Your task to perform on an android device: Go to internet settings Image 0: 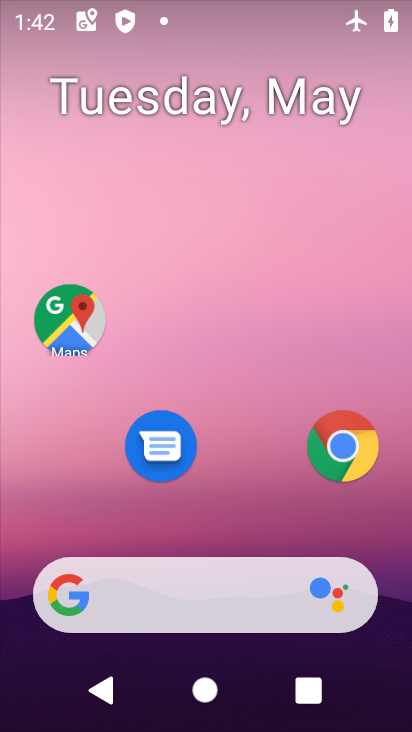
Step 0: drag from (205, 537) to (140, 2)
Your task to perform on an android device: Go to internet settings Image 1: 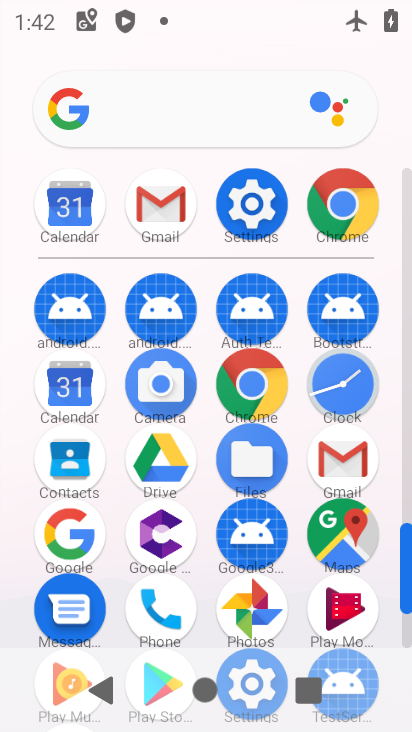
Step 1: click (261, 206)
Your task to perform on an android device: Go to internet settings Image 2: 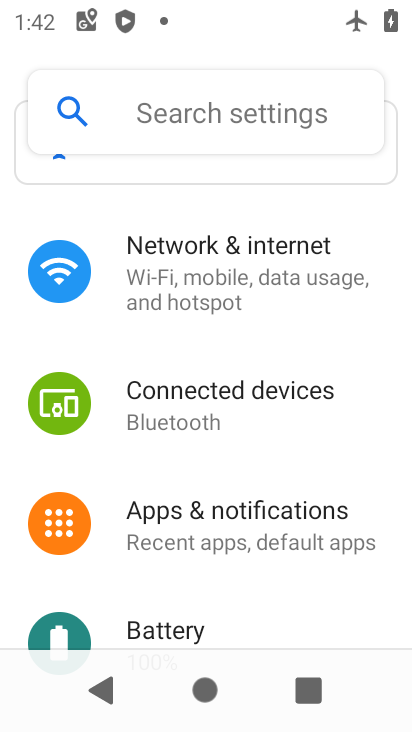
Step 2: click (210, 292)
Your task to perform on an android device: Go to internet settings Image 3: 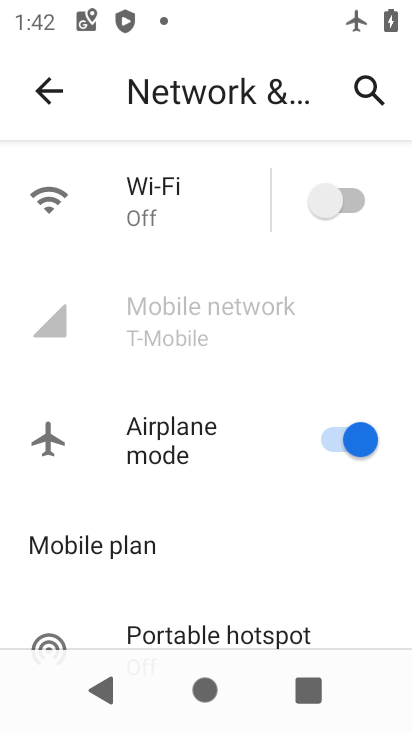
Step 3: task complete